Your task to perform on an android device: check storage Image 0: 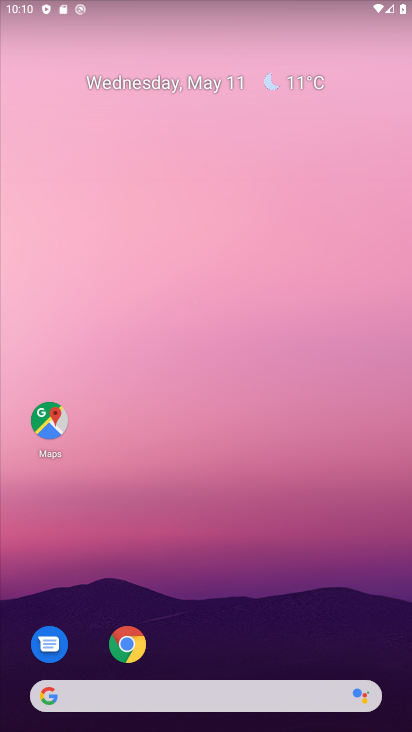
Step 0: drag from (260, 563) to (300, 0)
Your task to perform on an android device: check storage Image 1: 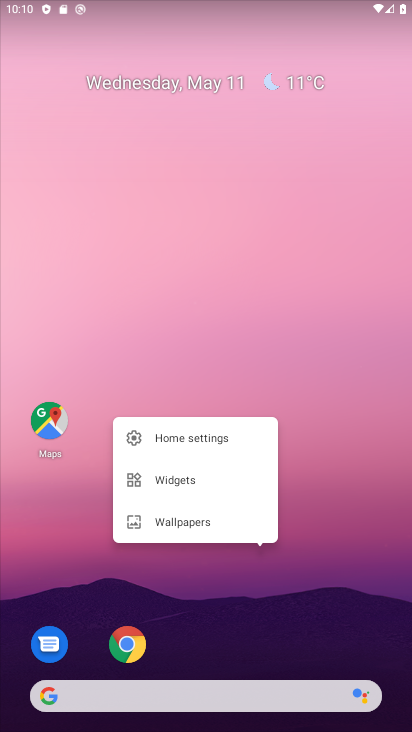
Step 1: drag from (362, 588) to (331, 11)
Your task to perform on an android device: check storage Image 2: 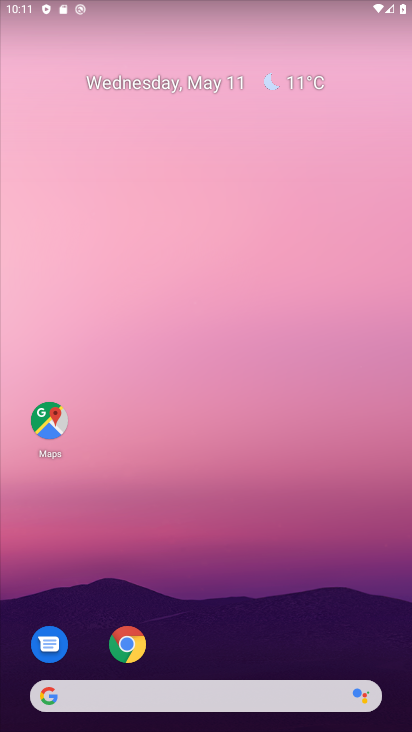
Step 2: drag from (338, 645) to (309, 0)
Your task to perform on an android device: check storage Image 3: 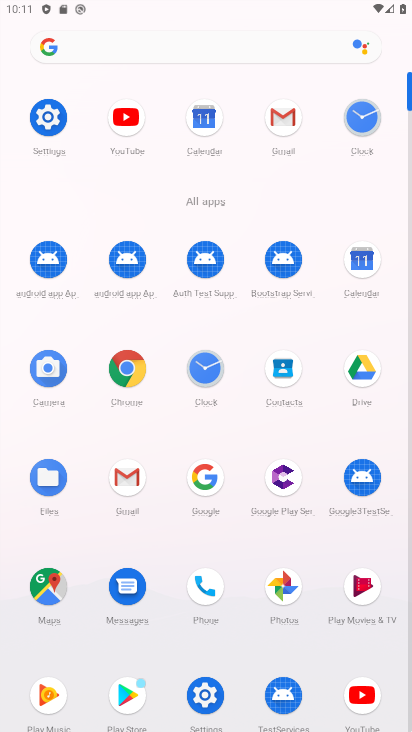
Step 3: click (44, 125)
Your task to perform on an android device: check storage Image 4: 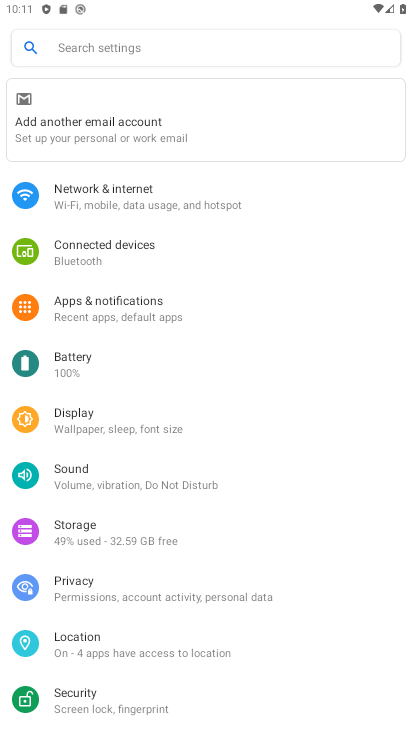
Step 4: click (99, 529)
Your task to perform on an android device: check storage Image 5: 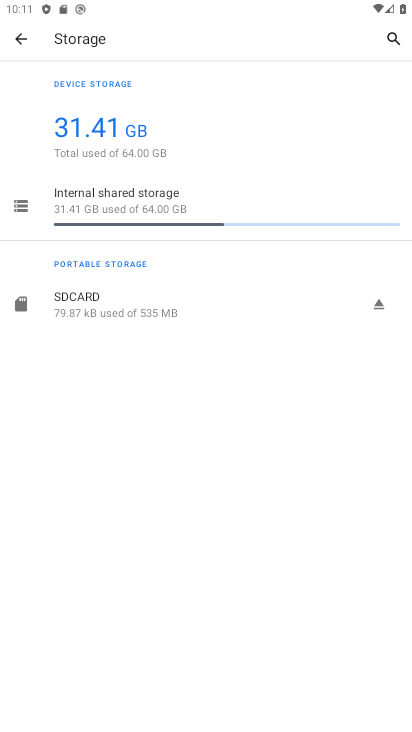
Step 5: click (143, 212)
Your task to perform on an android device: check storage Image 6: 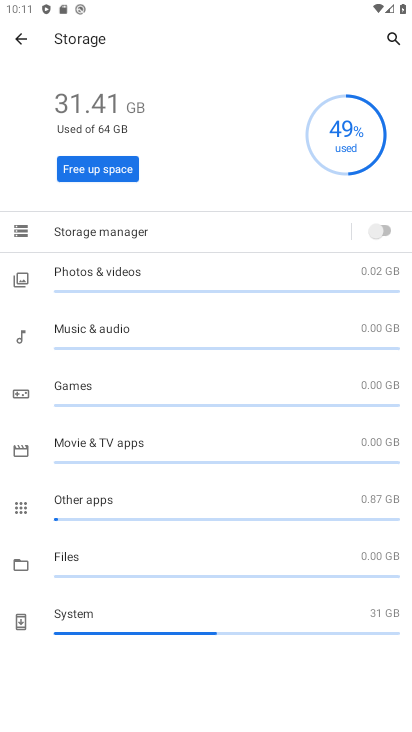
Step 6: task complete